Your task to perform on an android device: Open Yahoo.com Image 0: 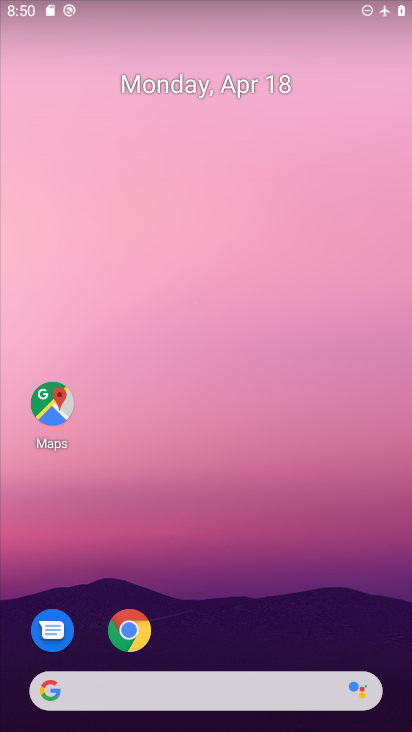
Step 0: click (136, 628)
Your task to perform on an android device: Open Yahoo.com Image 1: 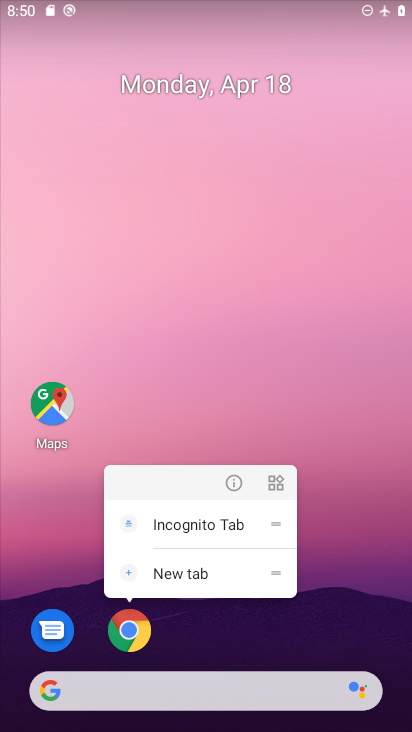
Step 1: click (129, 631)
Your task to perform on an android device: Open Yahoo.com Image 2: 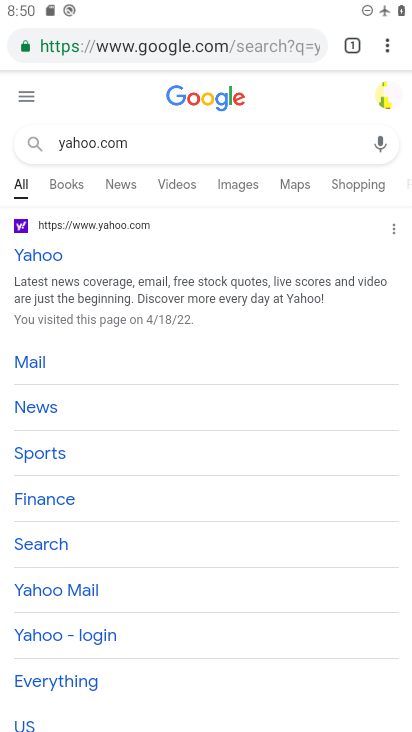
Step 2: task complete